Your task to perform on an android device: See recent photos Image 0: 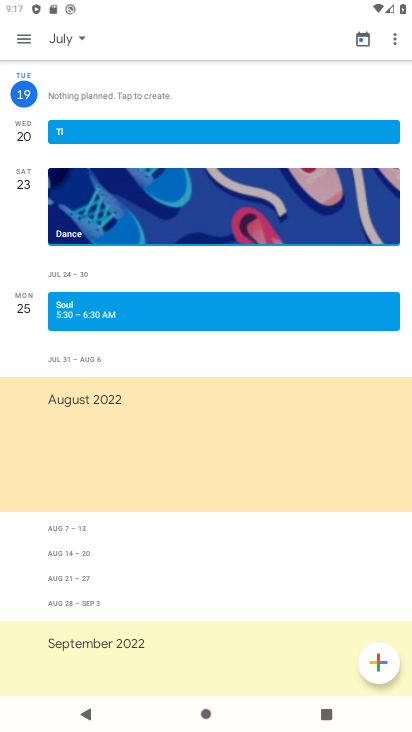
Step 0: press home button
Your task to perform on an android device: See recent photos Image 1: 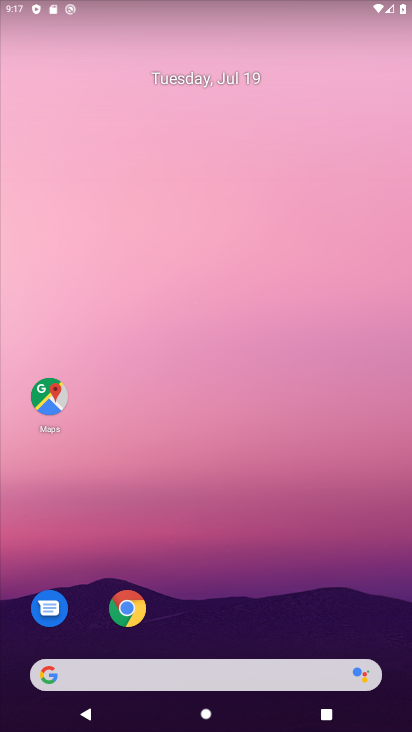
Step 1: drag from (268, 597) to (166, 0)
Your task to perform on an android device: See recent photos Image 2: 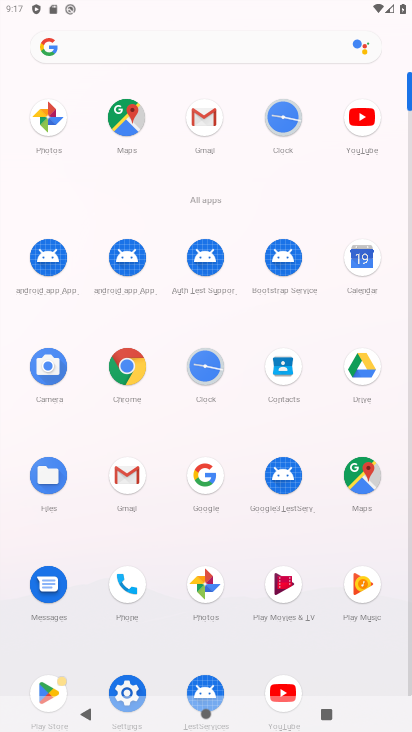
Step 2: click (49, 115)
Your task to perform on an android device: See recent photos Image 3: 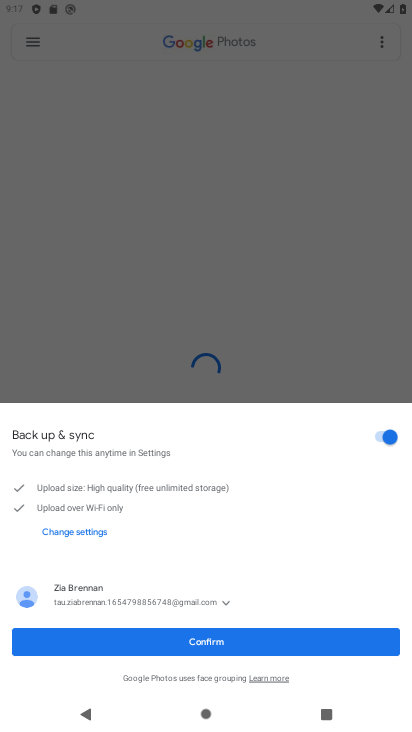
Step 3: click (211, 646)
Your task to perform on an android device: See recent photos Image 4: 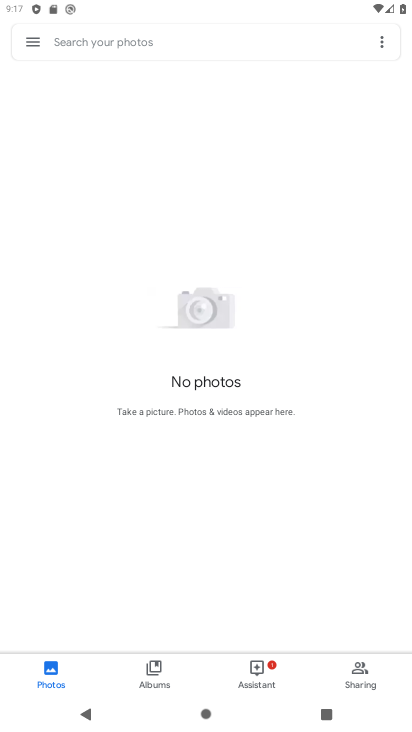
Step 4: task complete